Your task to perform on an android device: turn off data saver in the chrome app Image 0: 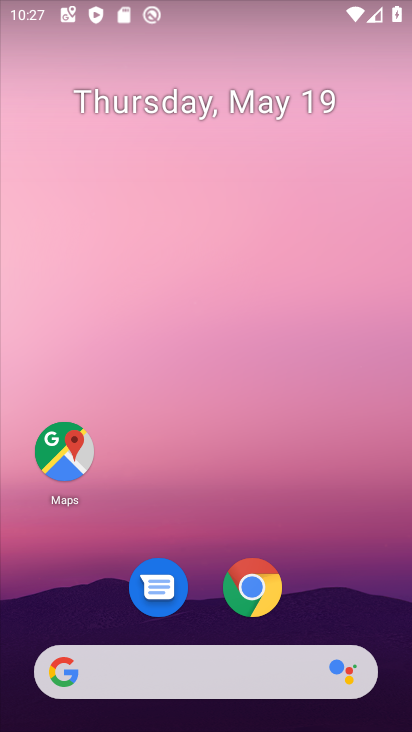
Step 0: drag from (379, 603) to (323, 146)
Your task to perform on an android device: turn off data saver in the chrome app Image 1: 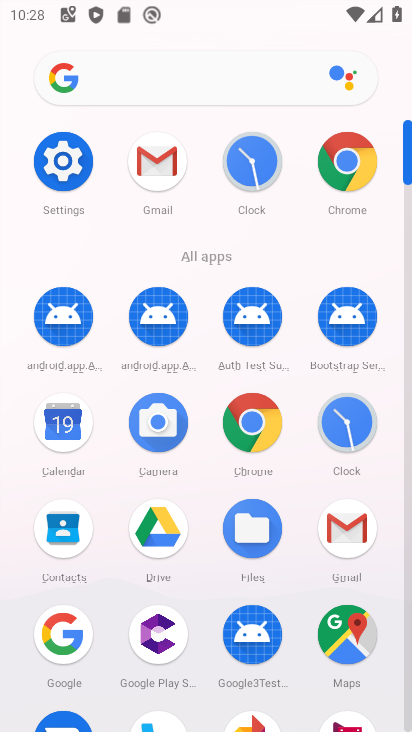
Step 1: click (47, 179)
Your task to perform on an android device: turn off data saver in the chrome app Image 2: 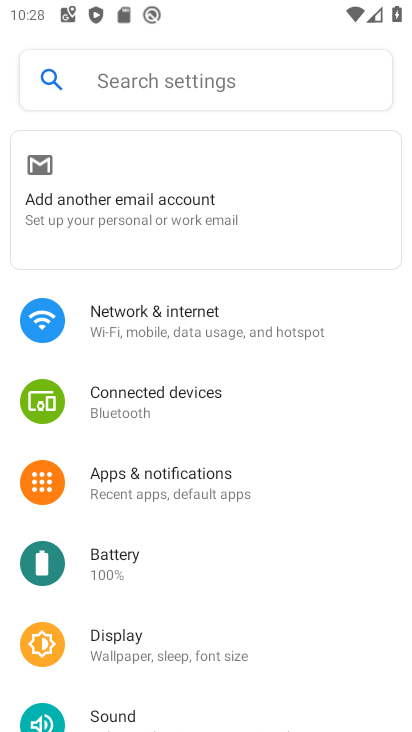
Step 2: drag from (318, 631) to (307, 182)
Your task to perform on an android device: turn off data saver in the chrome app Image 3: 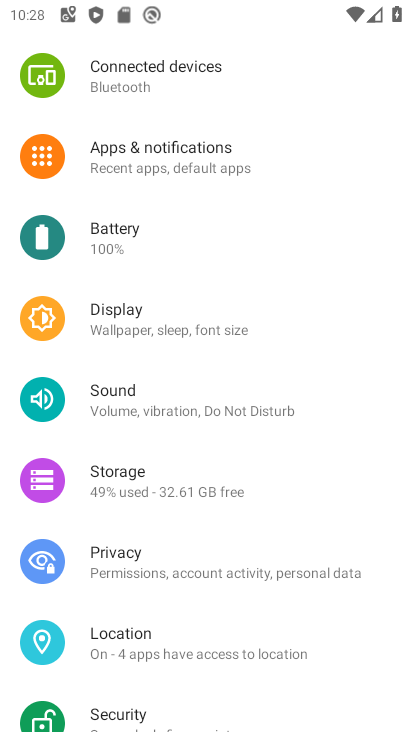
Step 3: press home button
Your task to perform on an android device: turn off data saver in the chrome app Image 4: 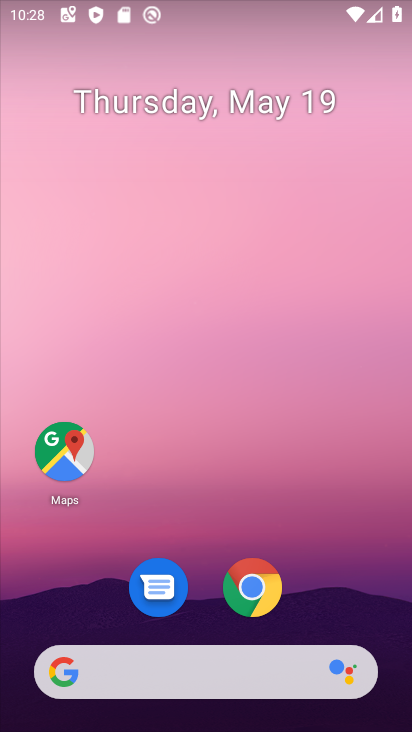
Step 4: drag from (370, 597) to (316, 91)
Your task to perform on an android device: turn off data saver in the chrome app Image 5: 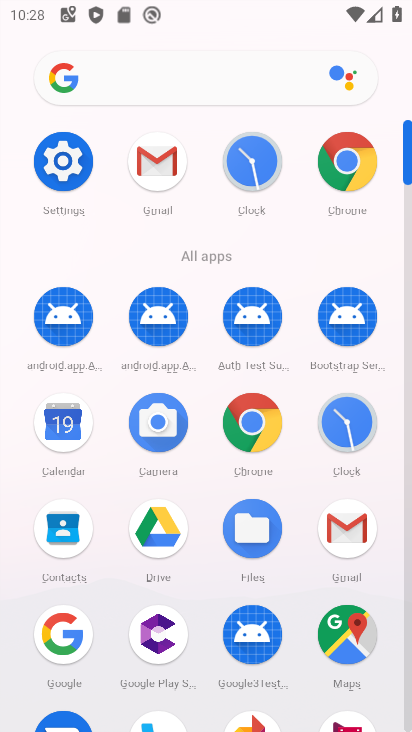
Step 5: drag from (343, 681) to (291, 270)
Your task to perform on an android device: turn off data saver in the chrome app Image 6: 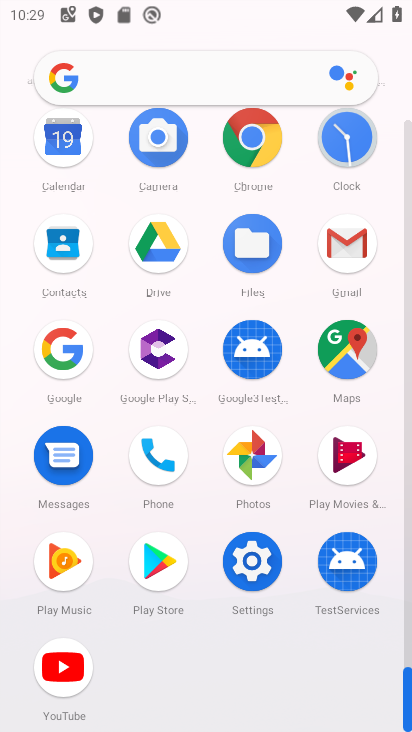
Step 6: click (231, 131)
Your task to perform on an android device: turn off data saver in the chrome app Image 7: 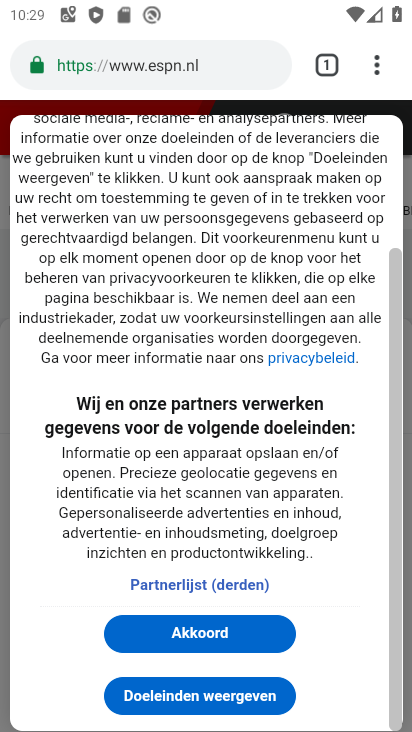
Step 7: task complete